Your task to perform on an android device: Open calendar and show me the second week of next month Image 0: 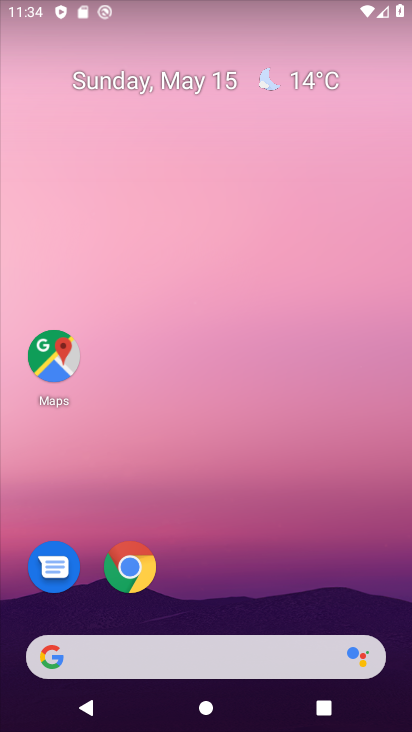
Step 0: drag from (233, 580) to (196, 149)
Your task to perform on an android device: Open calendar and show me the second week of next month Image 1: 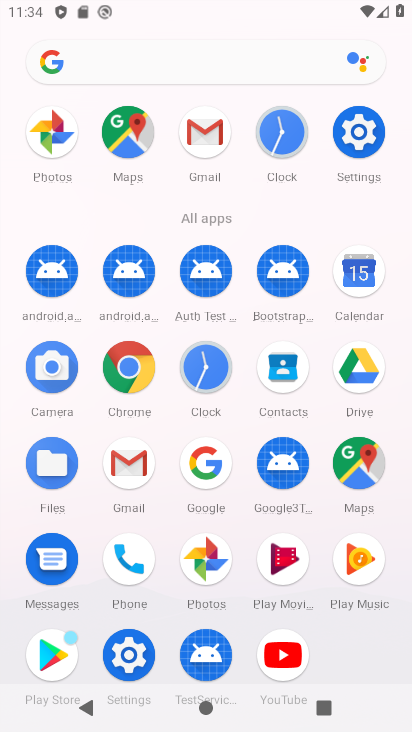
Step 1: click (362, 279)
Your task to perform on an android device: Open calendar and show me the second week of next month Image 2: 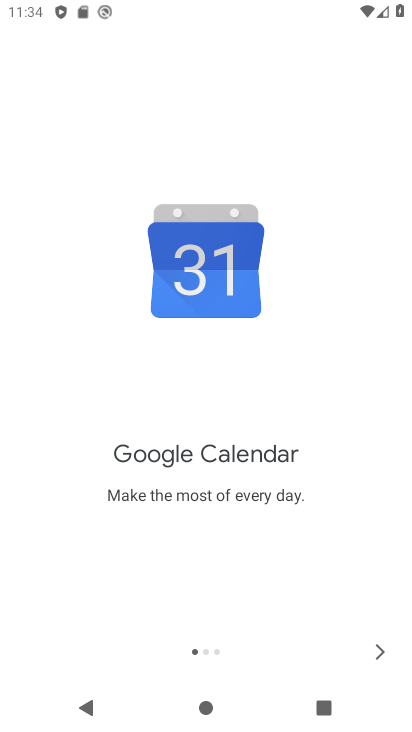
Step 2: click (368, 643)
Your task to perform on an android device: Open calendar and show me the second week of next month Image 3: 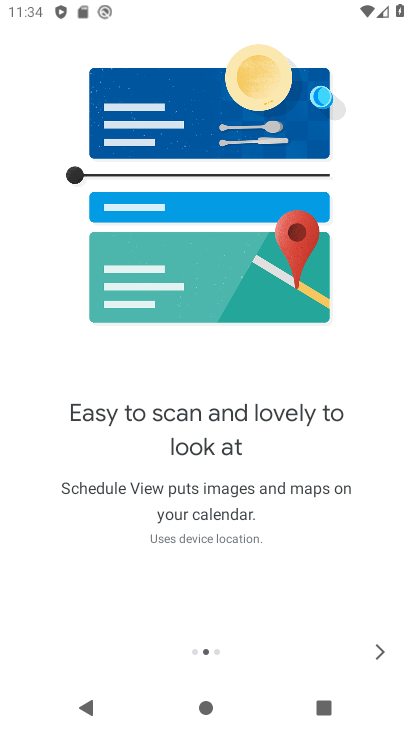
Step 3: click (368, 643)
Your task to perform on an android device: Open calendar and show me the second week of next month Image 4: 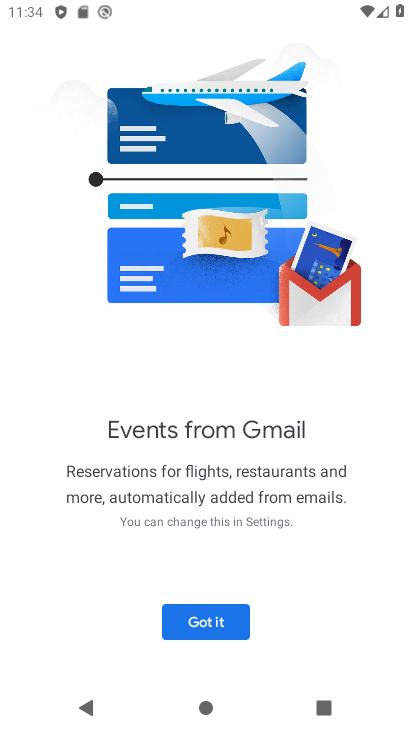
Step 4: click (239, 614)
Your task to perform on an android device: Open calendar and show me the second week of next month Image 5: 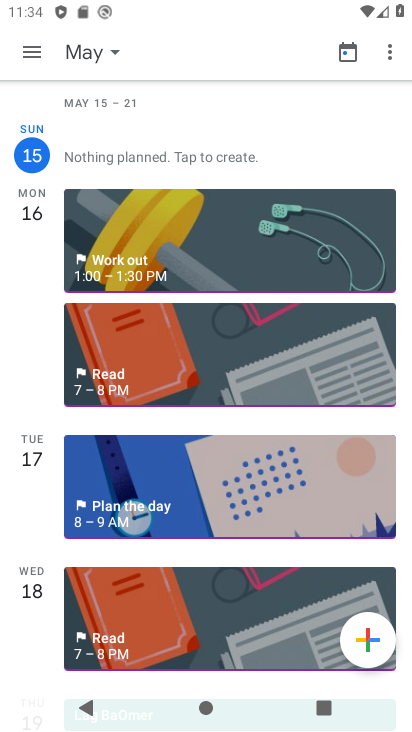
Step 5: click (70, 53)
Your task to perform on an android device: Open calendar and show me the second week of next month Image 6: 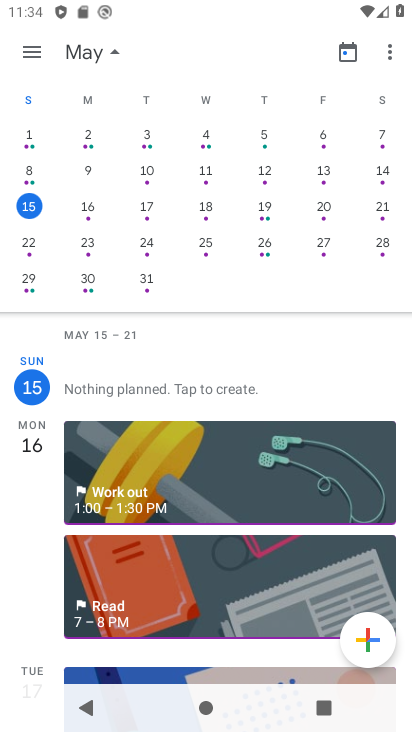
Step 6: drag from (348, 163) to (97, 151)
Your task to perform on an android device: Open calendar and show me the second week of next month Image 7: 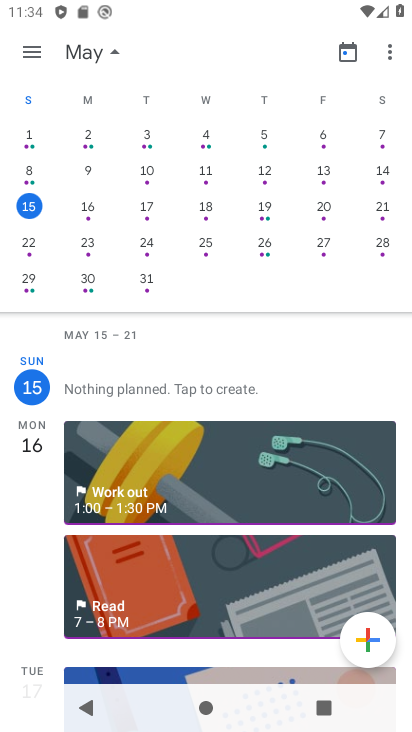
Step 7: drag from (342, 134) to (46, 178)
Your task to perform on an android device: Open calendar and show me the second week of next month Image 8: 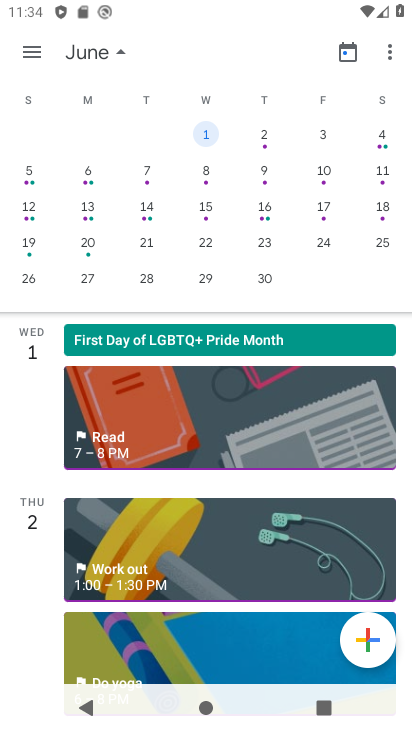
Step 8: click (28, 181)
Your task to perform on an android device: Open calendar and show me the second week of next month Image 9: 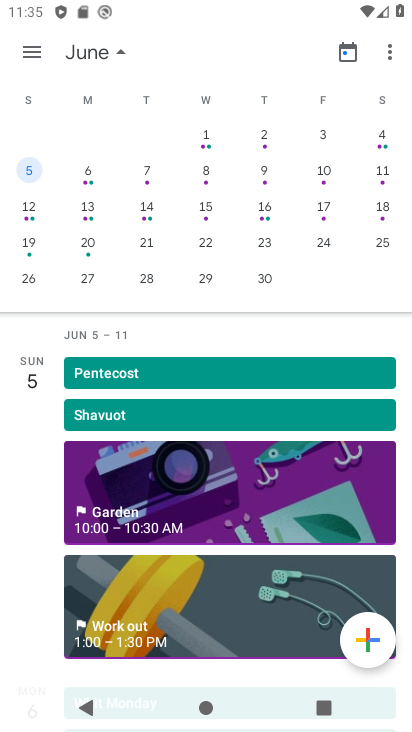
Step 9: task complete